Your task to perform on an android device: What's the news in Uruguay? Image 0: 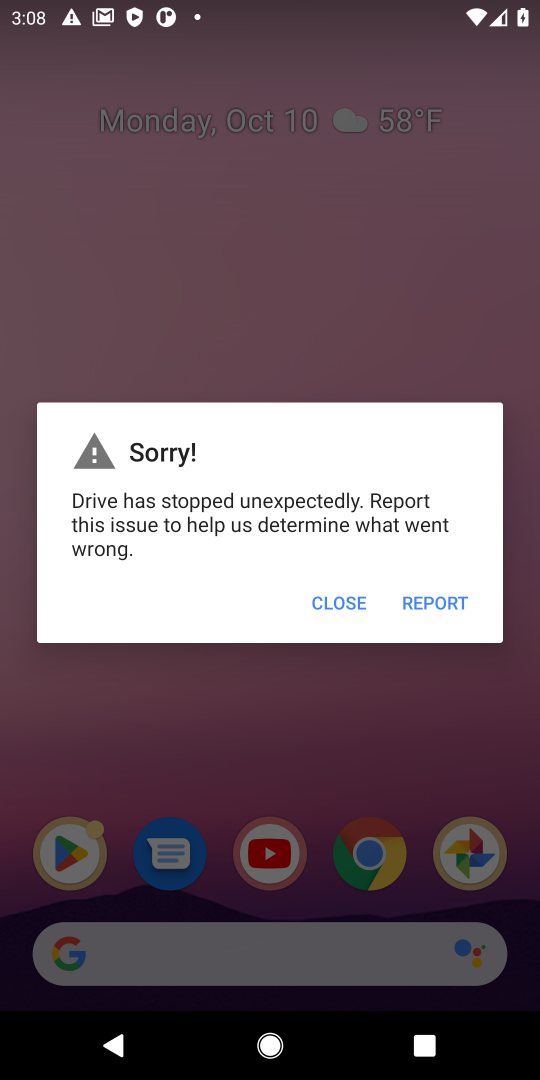
Step 0: click (324, 616)
Your task to perform on an android device: What's the news in Uruguay? Image 1: 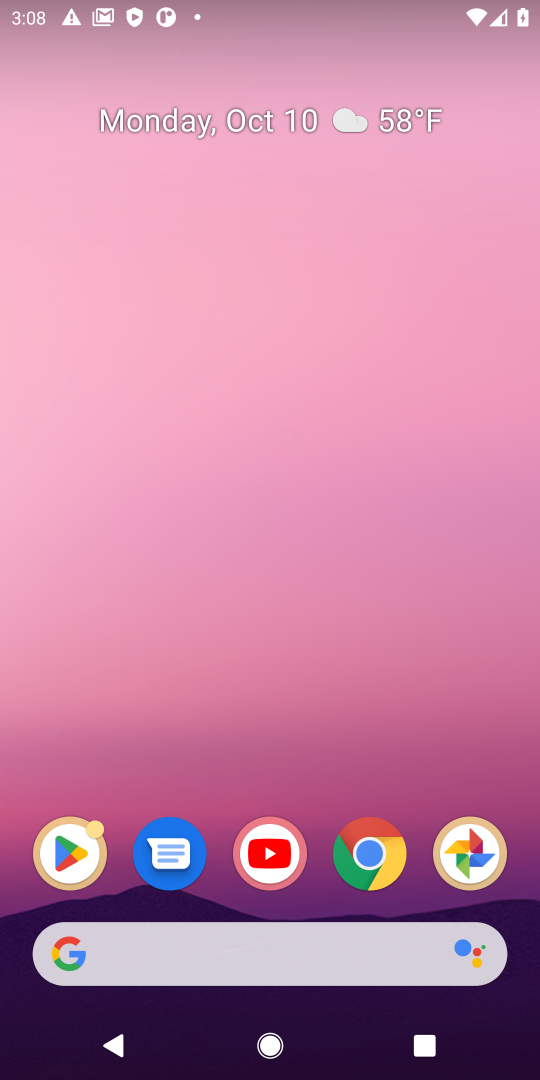
Step 1: click (375, 868)
Your task to perform on an android device: What's the news in Uruguay? Image 2: 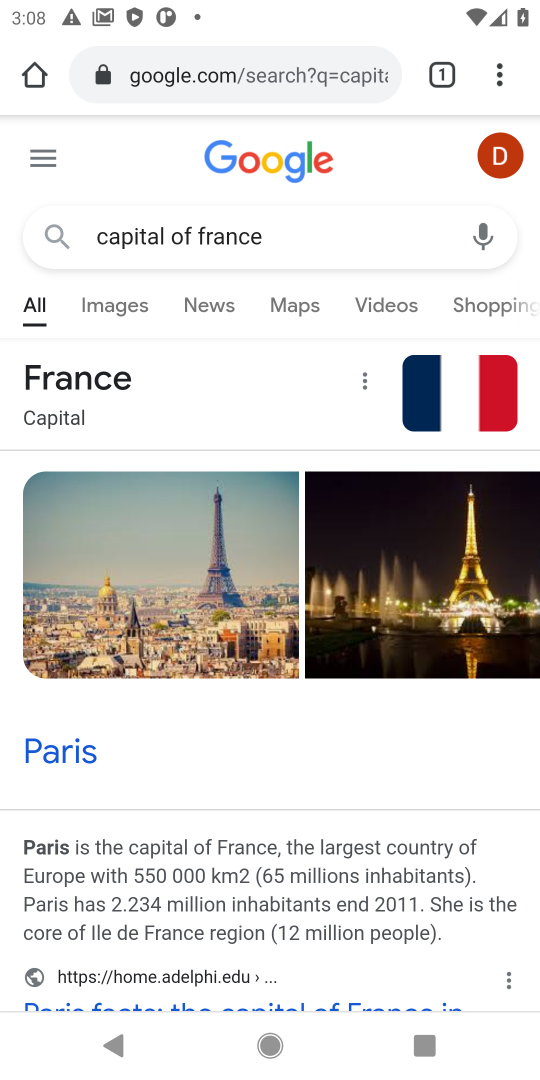
Step 2: click (295, 77)
Your task to perform on an android device: What's the news in Uruguay? Image 3: 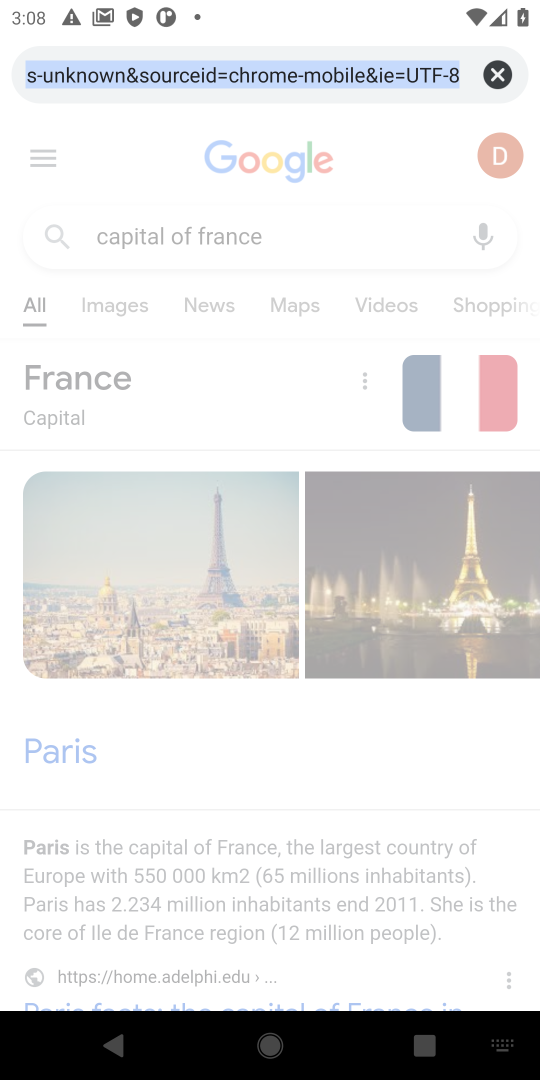
Step 3: type "What's the news in Uruguay?"
Your task to perform on an android device: What's the news in Uruguay? Image 4: 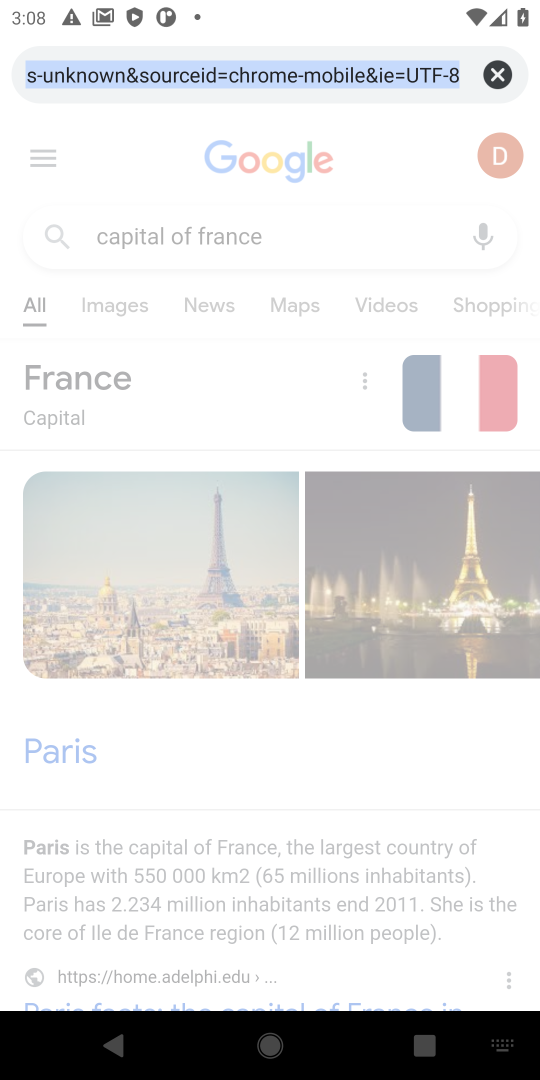
Step 4: click (368, 75)
Your task to perform on an android device: What's the news in Uruguay? Image 5: 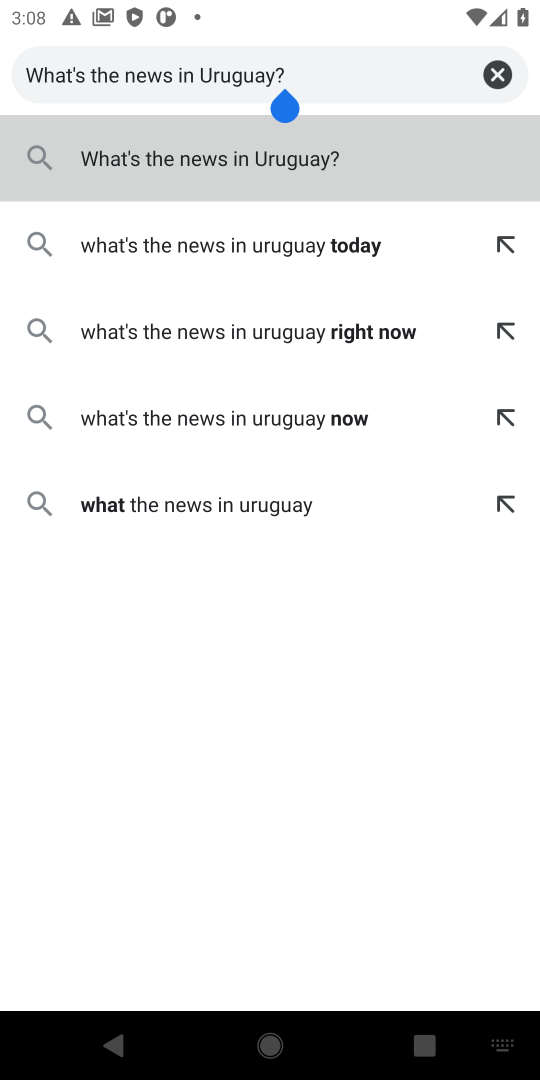
Step 5: click (309, 175)
Your task to perform on an android device: What's the news in Uruguay? Image 6: 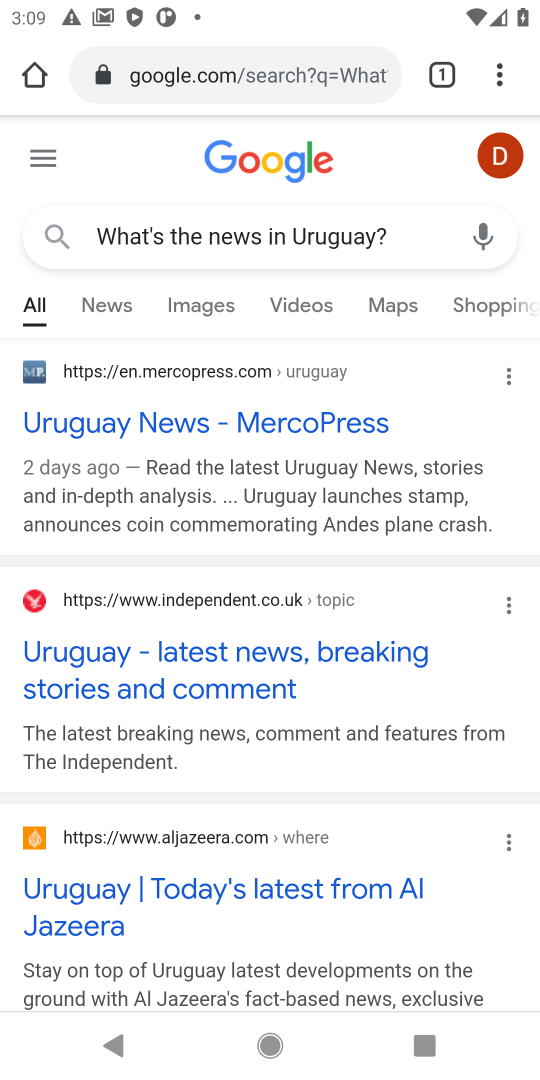
Step 6: click (382, 662)
Your task to perform on an android device: What's the news in Uruguay? Image 7: 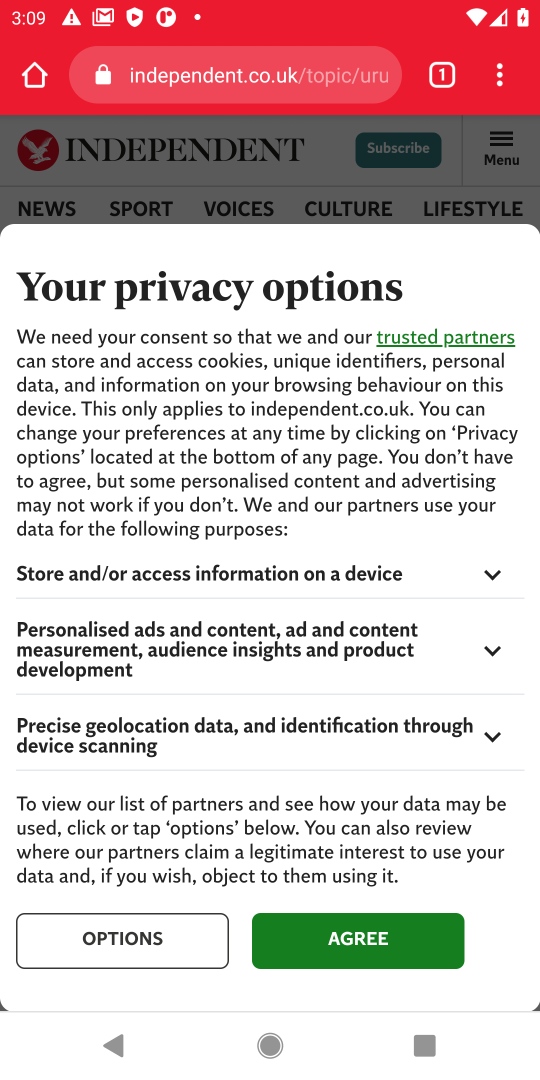
Step 7: click (284, 921)
Your task to perform on an android device: What's the news in Uruguay? Image 8: 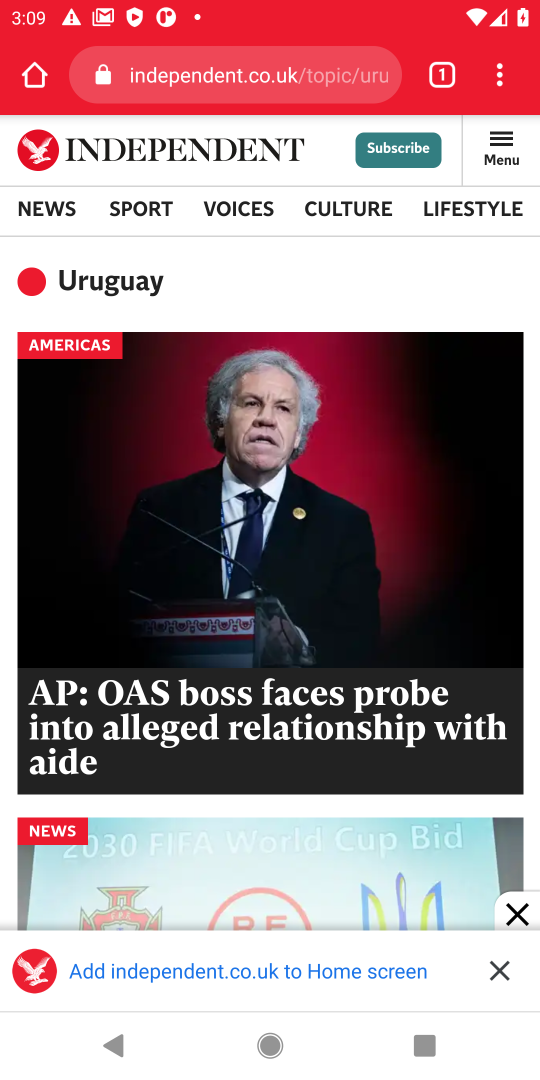
Step 8: task complete